Your task to perform on an android device: check battery use Image 0: 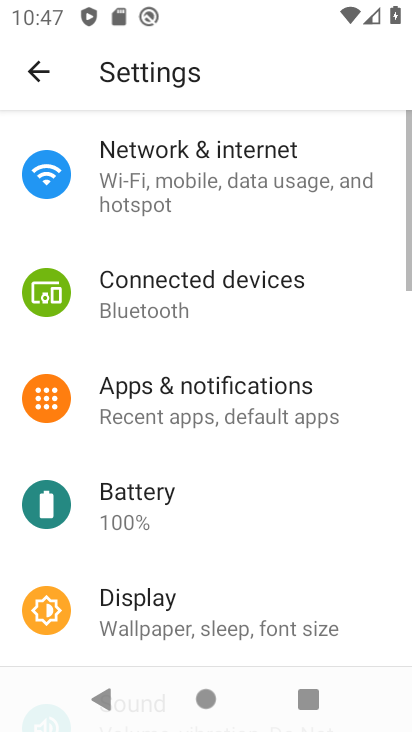
Step 0: press back button
Your task to perform on an android device: check battery use Image 1: 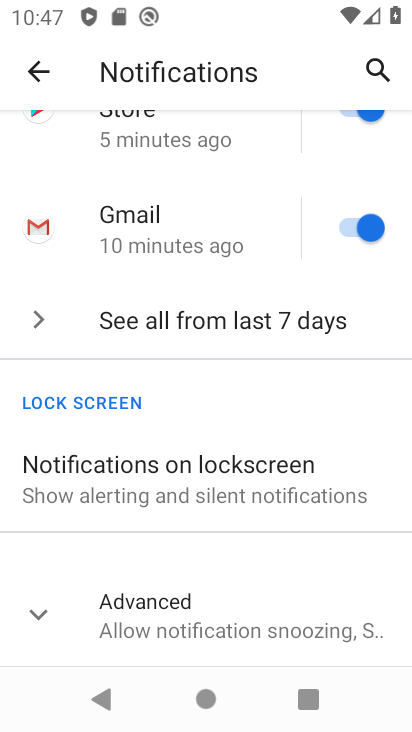
Step 1: click (37, 70)
Your task to perform on an android device: check battery use Image 2: 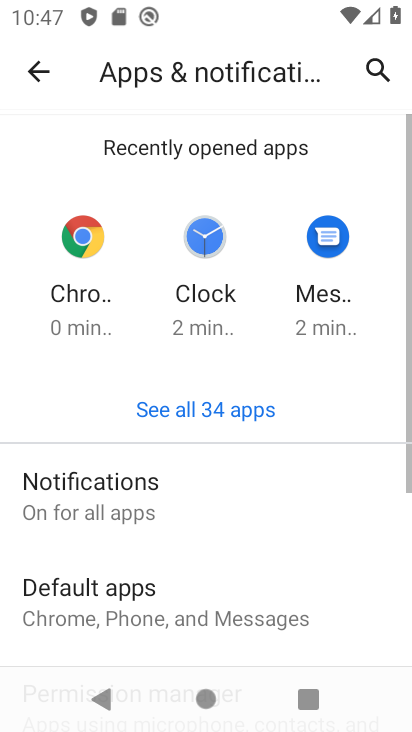
Step 2: press back button
Your task to perform on an android device: check battery use Image 3: 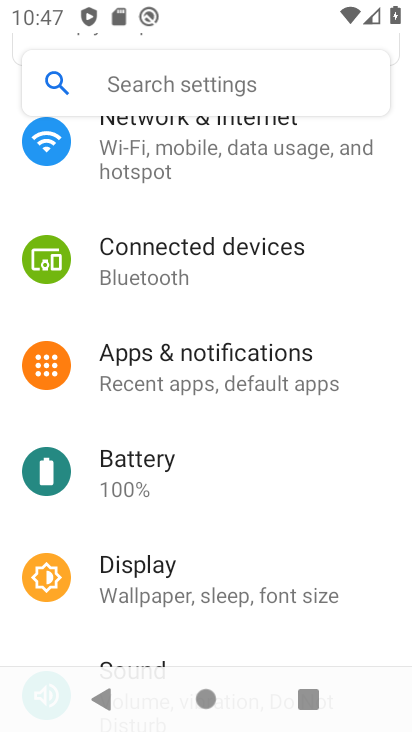
Step 3: click (118, 462)
Your task to perform on an android device: check battery use Image 4: 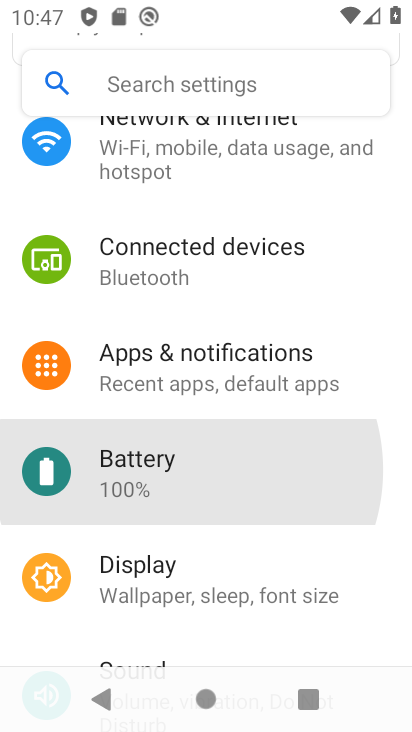
Step 4: click (117, 465)
Your task to perform on an android device: check battery use Image 5: 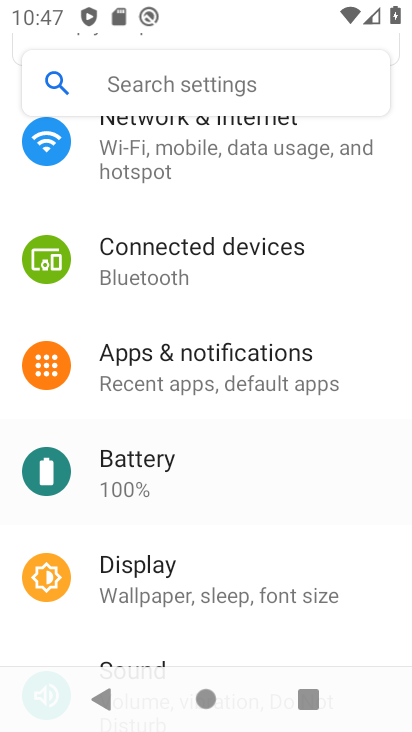
Step 5: click (118, 466)
Your task to perform on an android device: check battery use Image 6: 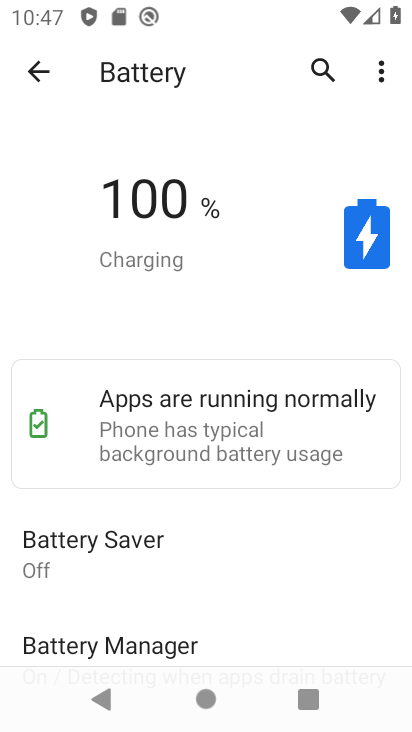
Step 6: task complete